Your task to perform on an android device: change the clock display to digital Image 0: 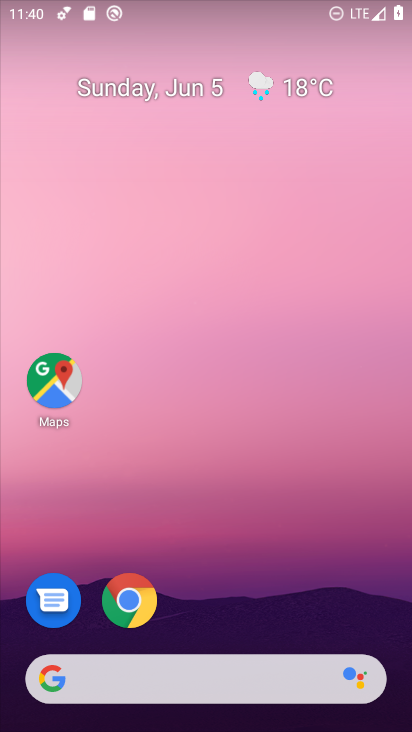
Step 0: drag from (221, 603) to (209, 252)
Your task to perform on an android device: change the clock display to digital Image 1: 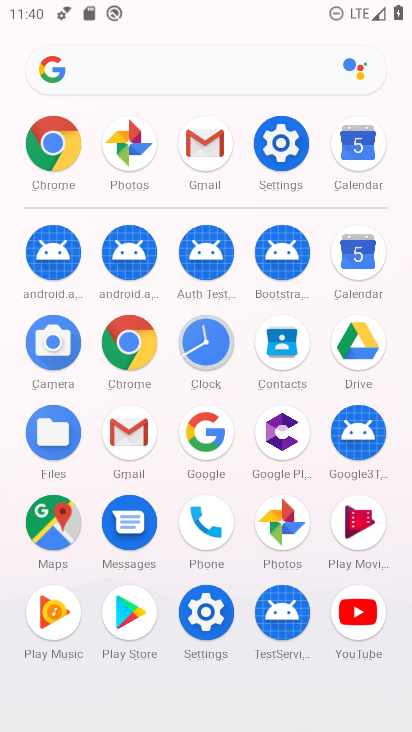
Step 1: click (189, 330)
Your task to perform on an android device: change the clock display to digital Image 2: 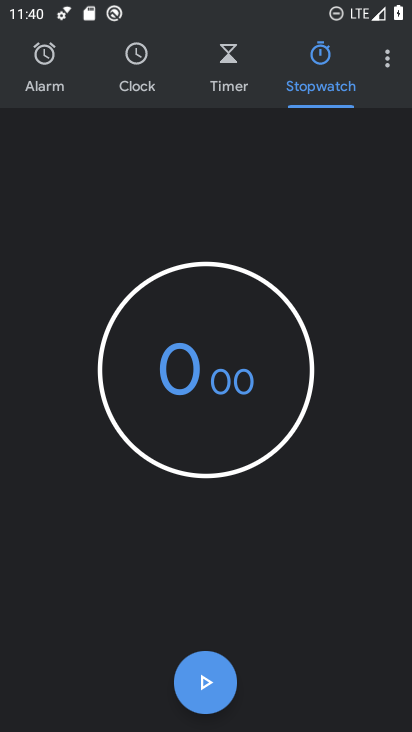
Step 2: click (398, 70)
Your task to perform on an android device: change the clock display to digital Image 3: 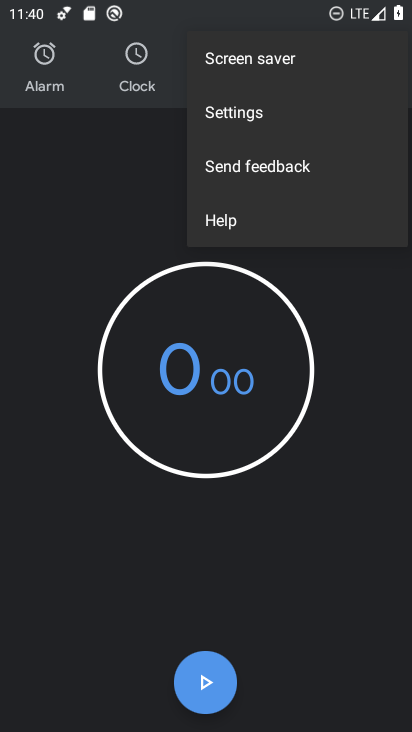
Step 3: click (250, 113)
Your task to perform on an android device: change the clock display to digital Image 4: 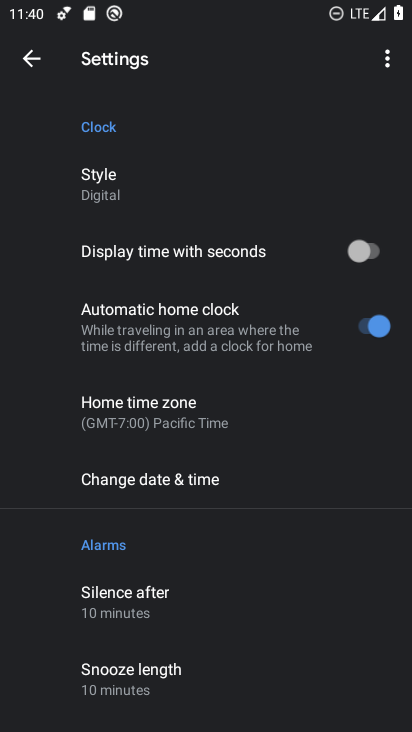
Step 4: task complete